Your task to perform on an android device: What's the weather going to be tomorrow? Image 0: 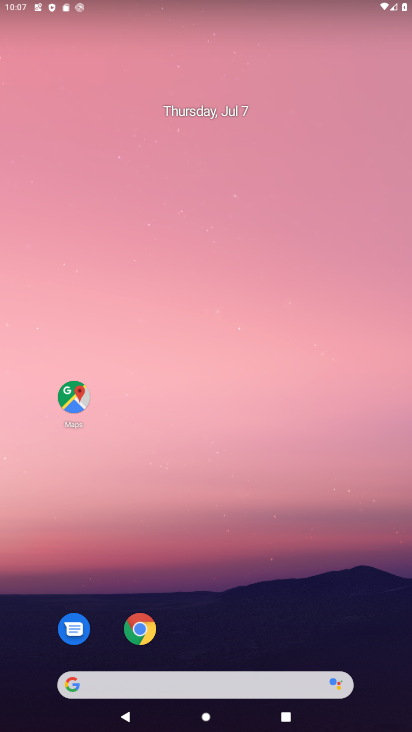
Step 0: press home button
Your task to perform on an android device: What's the weather going to be tomorrow? Image 1: 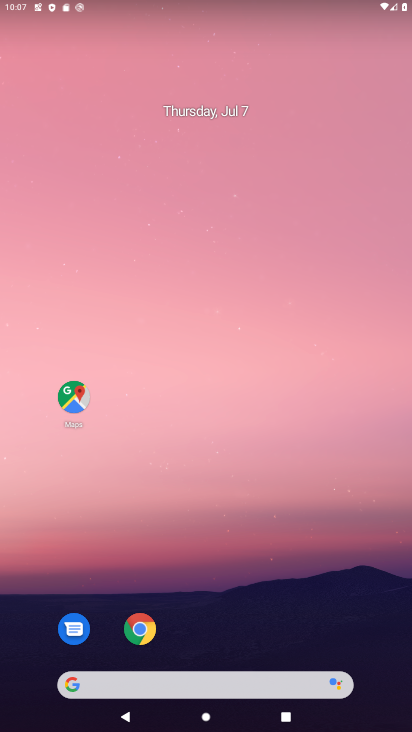
Step 1: click (75, 683)
Your task to perform on an android device: What's the weather going to be tomorrow? Image 2: 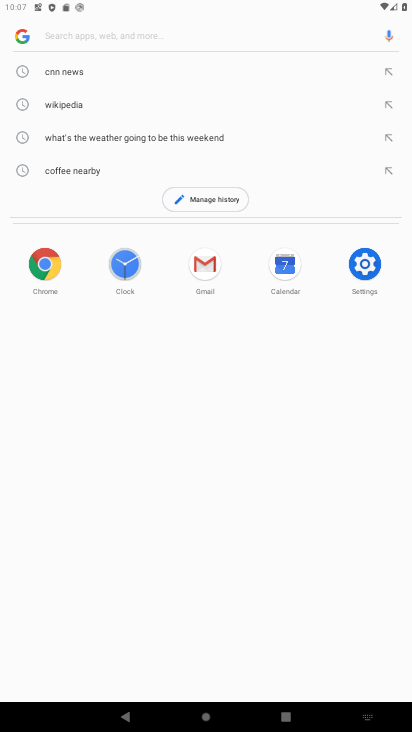
Step 2: type "weathet tomorrow"
Your task to perform on an android device: What's the weather going to be tomorrow? Image 3: 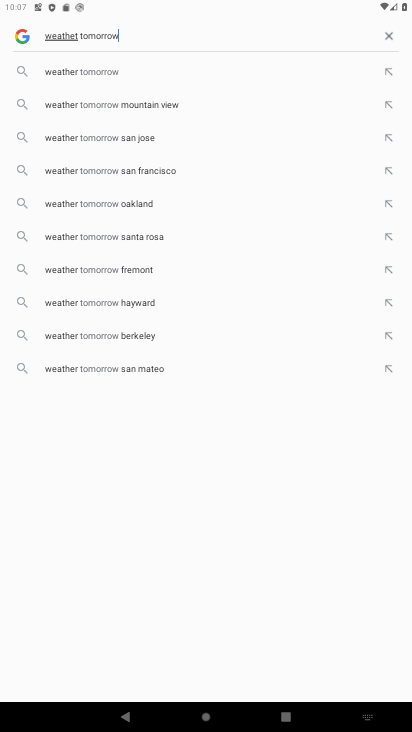
Step 3: click (83, 71)
Your task to perform on an android device: What's the weather going to be tomorrow? Image 4: 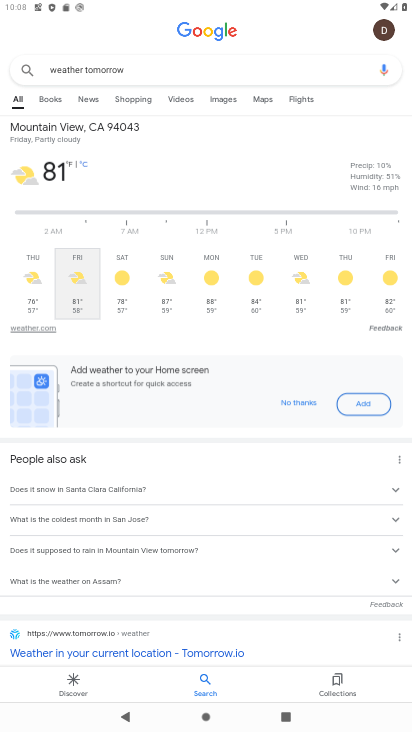
Step 4: task complete